Your task to perform on an android device: turn smart compose on in the gmail app Image 0: 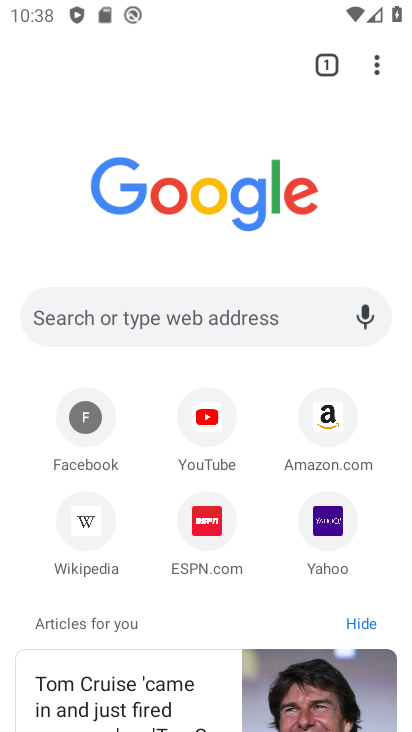
Step 0: press back button
Your task to perform on an android device: turn smart compose on in the gmail app Image 1: 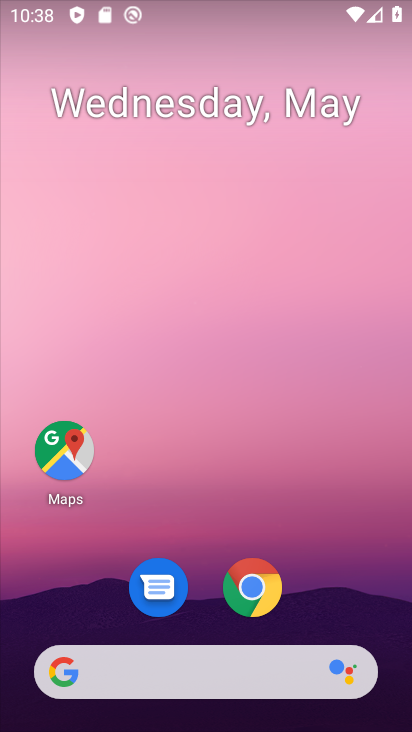
Step 1: drag from (217, 563) to (305, 106)
Your task to perform on an android device: turn smart compose on in the gmail app Image 2: 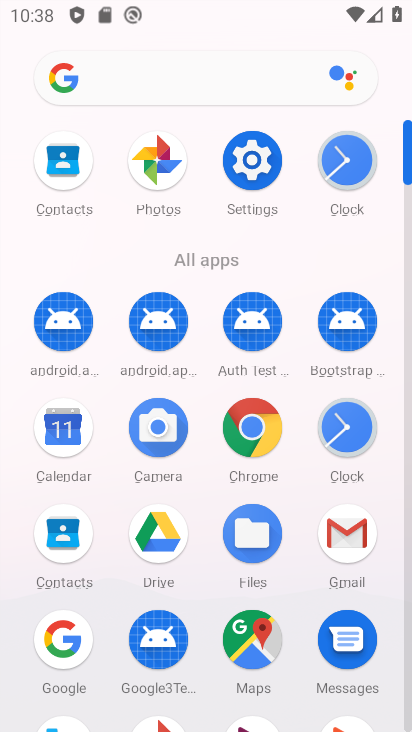
Step 2: click (349, 536)
Your task to perform on an android device: turn smart compose on in the gmail app Image 3: 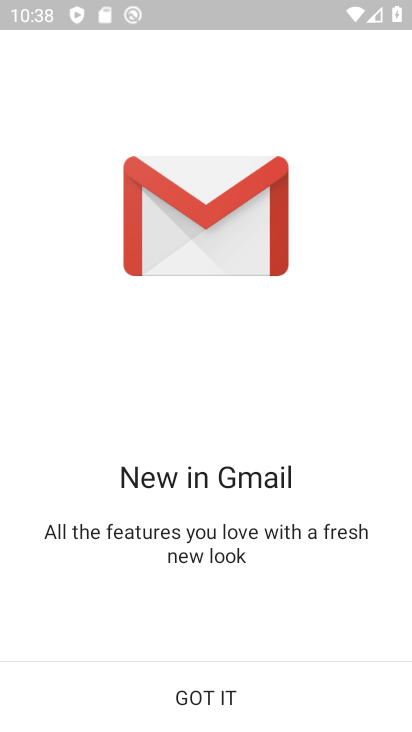
Step 3: click (209, 692)
Your task to perform on an android device: turn smart compose on in the gmail app Image 4: 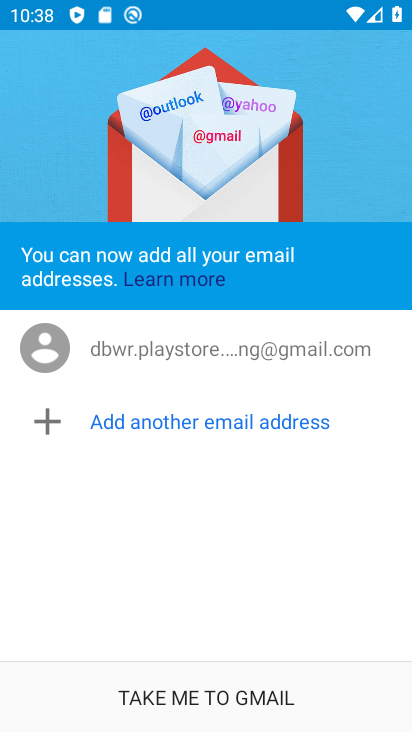
Step 4: click (178, 706)
Your task to perform on an android device: turn smart compose on in the gmail app Image 5: 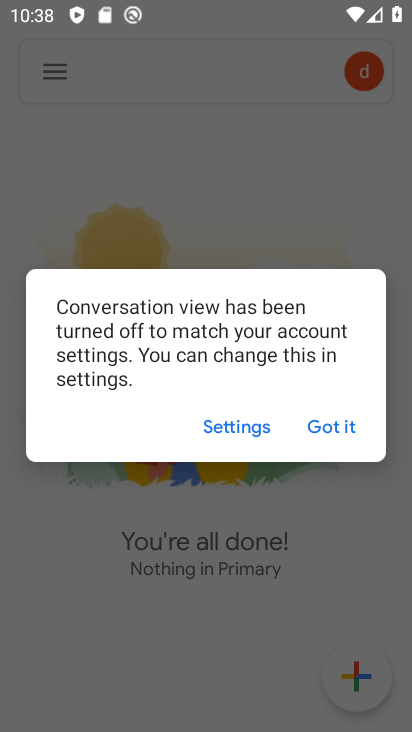
Step 5: click (328, 432)
Your task to perform on an android device: turn smart compose on in the gmail app Image 6: 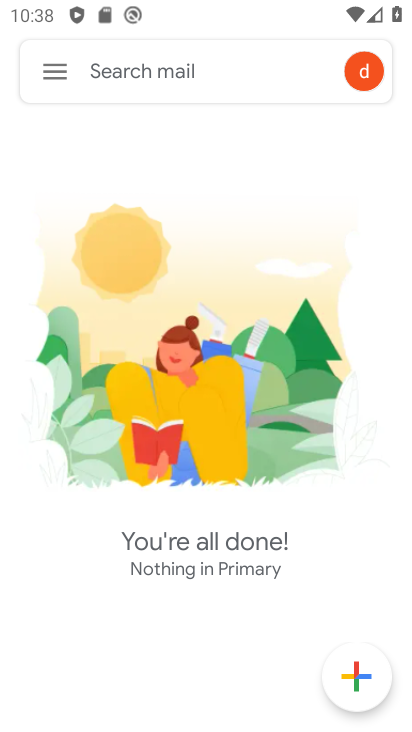
Step 6: click (54, 66)
Your task to perform on an android device: turn smart compose on in the gmail app Image 7: 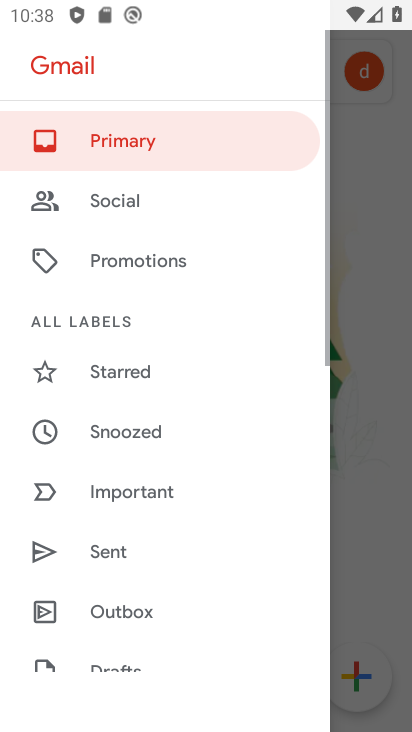
Step 7: drag from (123, 575) to (256, 44)
Your task to perform on an android device: turn smart compose on in the gmail app Image 8: 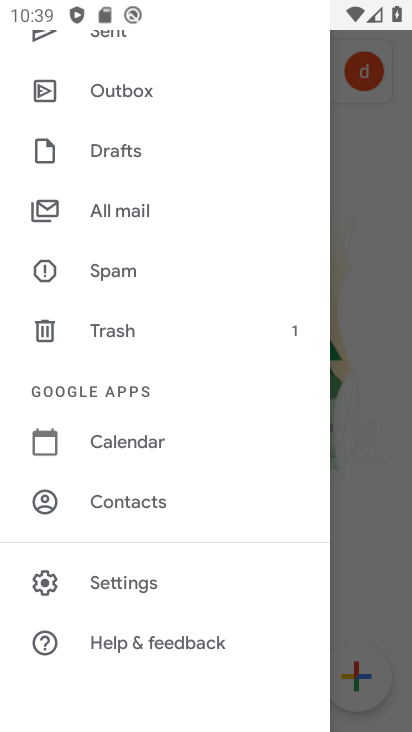
Step 8: click (136, 577)
Your task to perform on an android device: turn smart compose on in the gmail app Image 9: 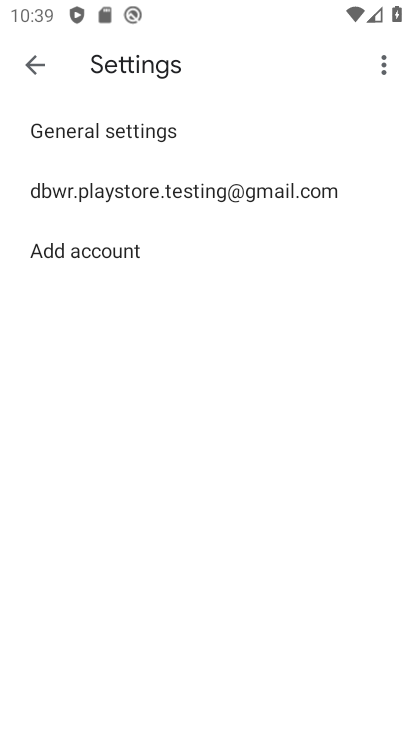
Step 9: click (167, 187)
Your task to perform on an android device: turn smart compose on in the gmail app Image 10: 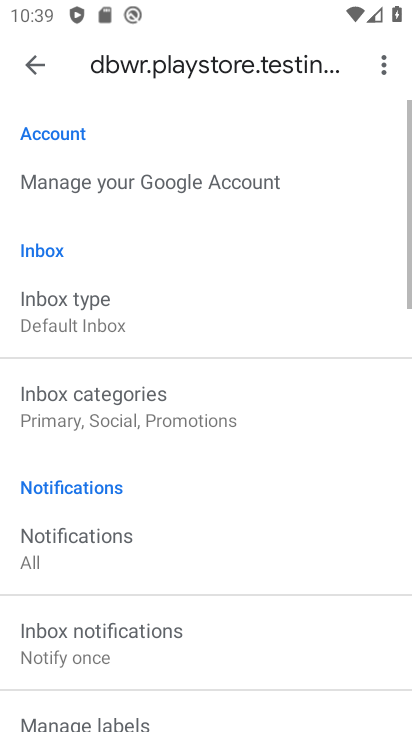
Step 10: task complete